Your task to perform on an android device: Open my contact list Image 0: 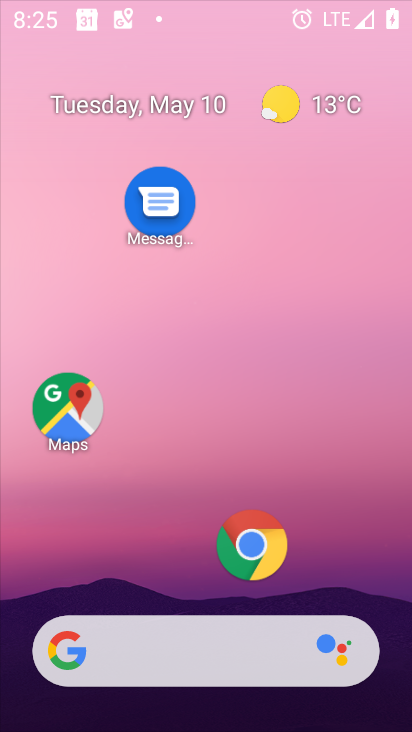
Step 0: press home button
Your task to perform on an android device: Open my contact list Image 1: 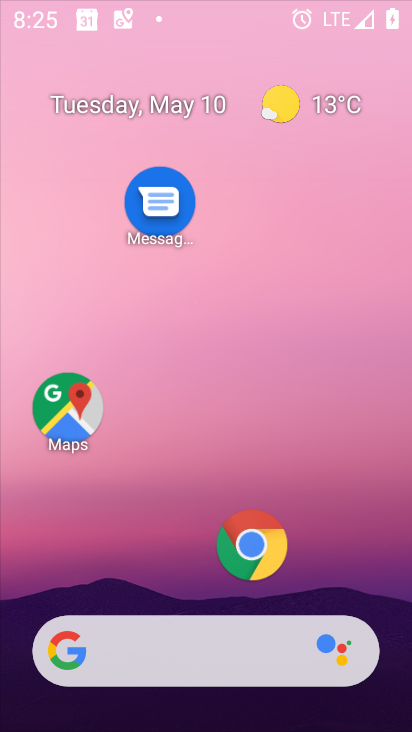
Step 1: press home button
Your task to perform on an android device: Open my contact list Image 2: 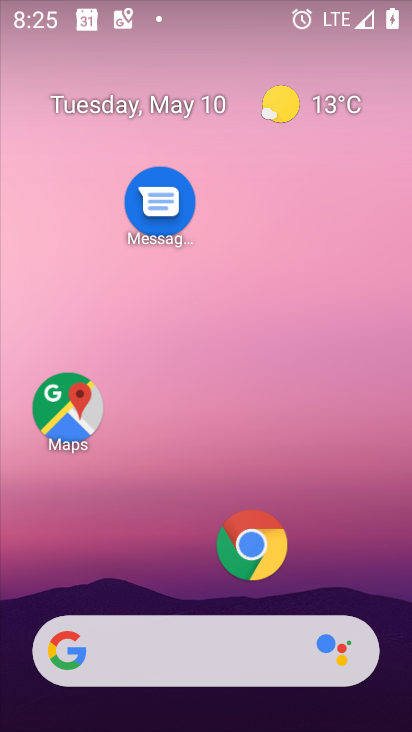
Step 2: drag from (191, 582) to (261, 52)
Your task to perform on an android device: Open my contact list Image 3: 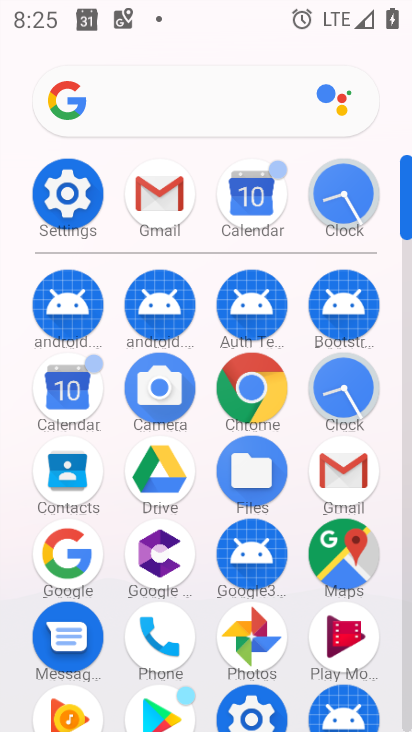
Step 3: click (64, 459)
Your task to perform on an android device: Open my contact list Image 4: 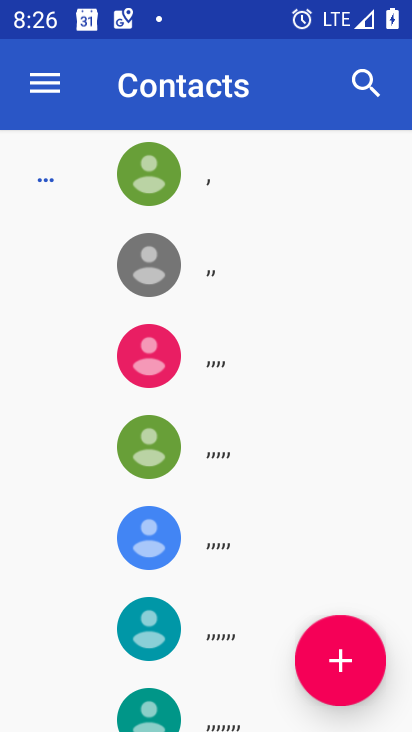
Step 4: task complete